Your task to perform on an android device: see sites visited before in the chrome app Image 0: 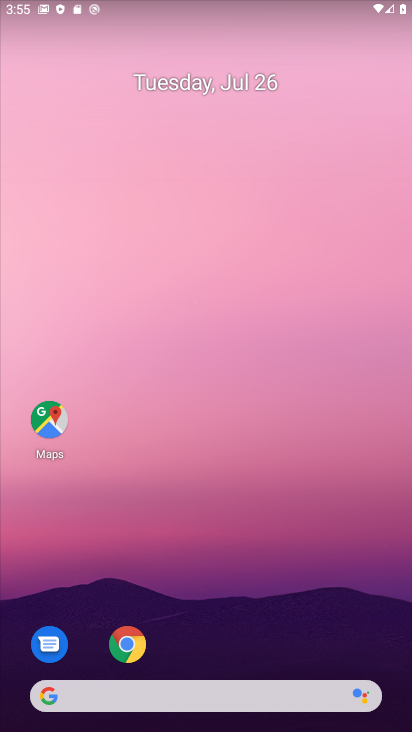
Step 0: click (126, 645)
Your task to perform on an android device: see sites visited before in the chrome app Image 1: 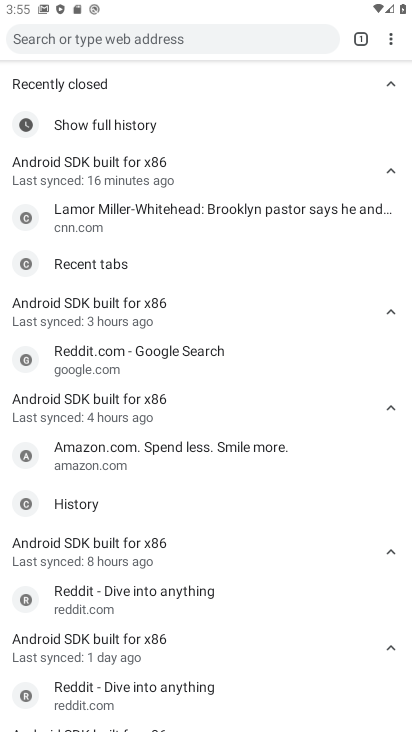
Step 1: click (391, 42)
Your task to perform on an android device: see sites visited before in the chrome app Image 2: 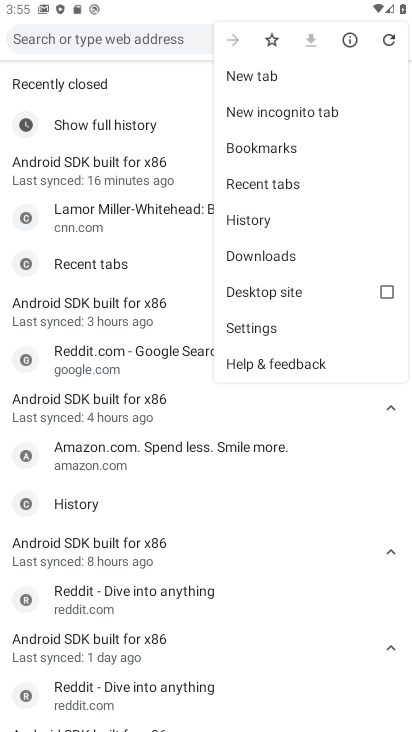
Step 2: click (249, 213)
Your task to perform on an android device: see sites visited before in the chrome app Image 3: 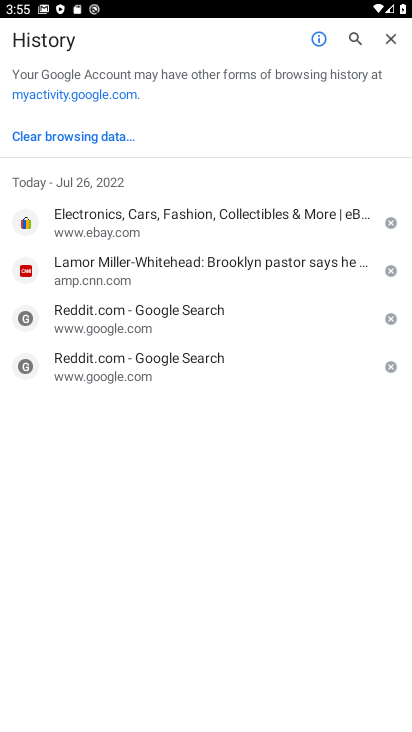
Step 3: task complete